Your task to perform on an android device: open app "Booking.com: Hotels and more" (install if not already installed), go to login, and select forgot password Image 0: 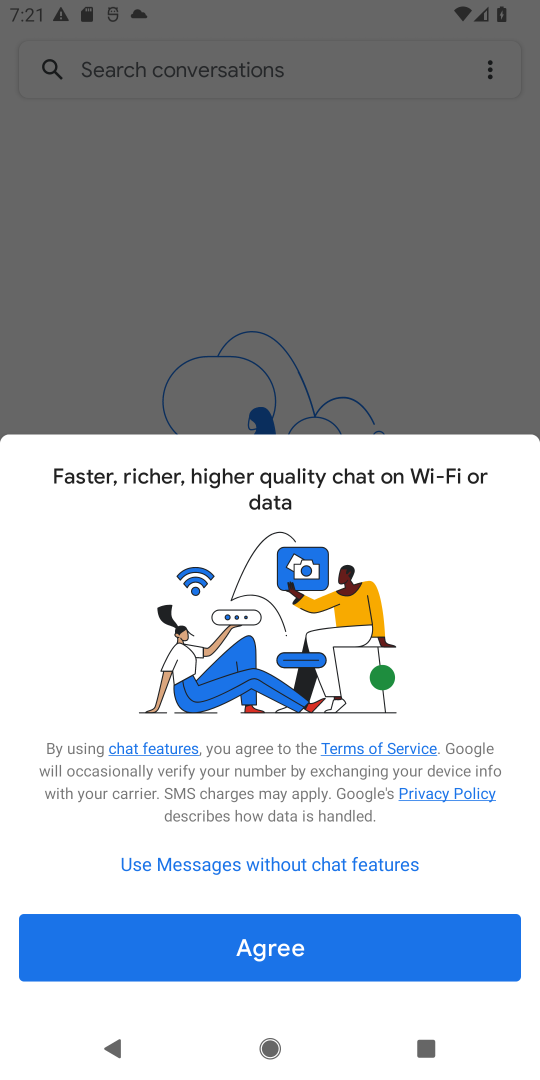
Step 0: press home button
Your task to perform on an android device: open app "Booking.com: Hotels and more" (install if not already installed), go to login, and select forgot password Image 1: 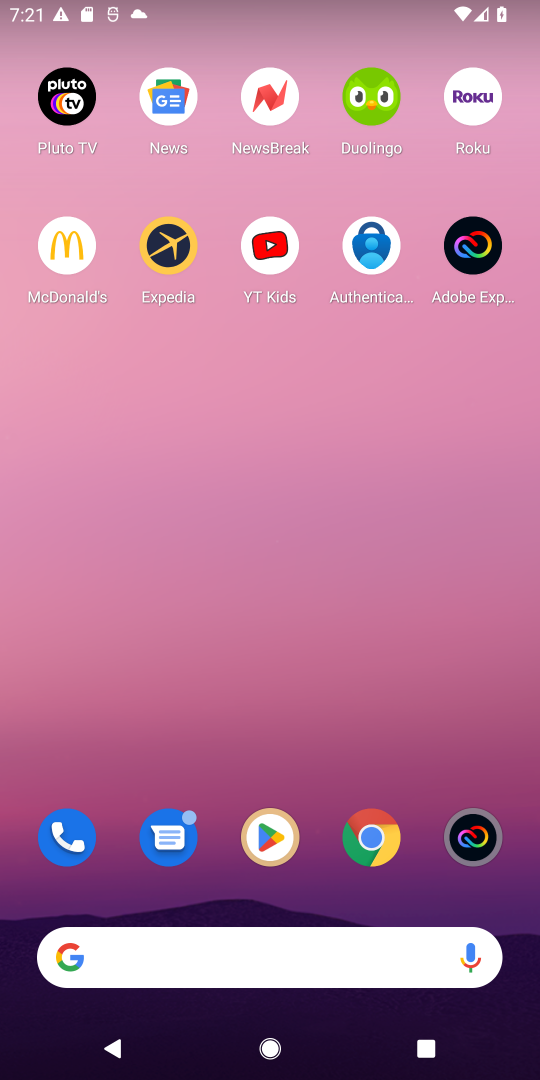
Step 1: drag from (222, 875) to (297, 59)
Your task to perform on an android device: open app "Booking.com: Hotels and more" (install if not already installed), go to login, and select forgot password Image 2: 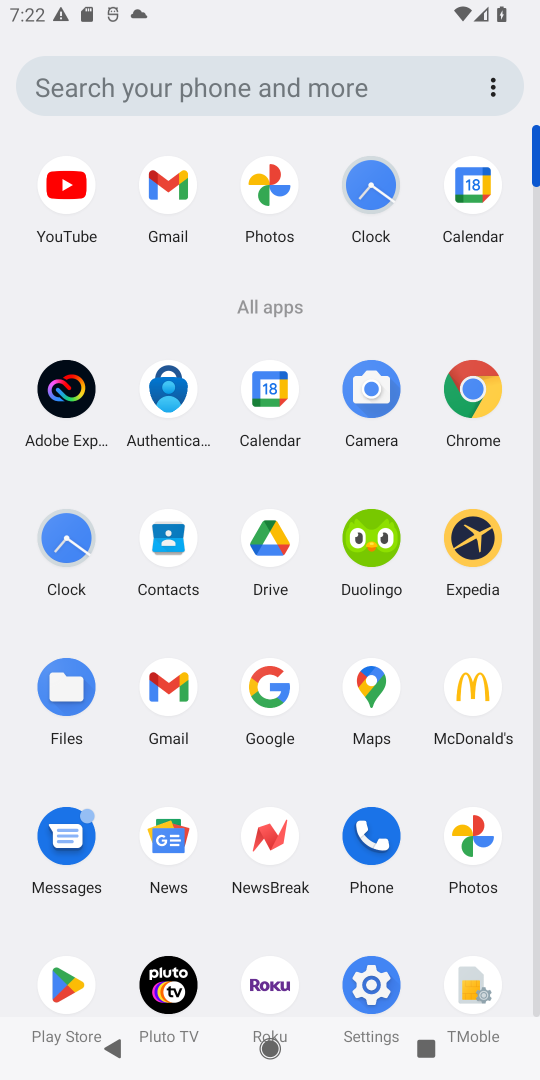
Step 2: click (73, 984)
Your task to perform on an android device: open app "Booking.com: Hotels and more" (install if not already installed), go to login, and select forgot password Image 3: 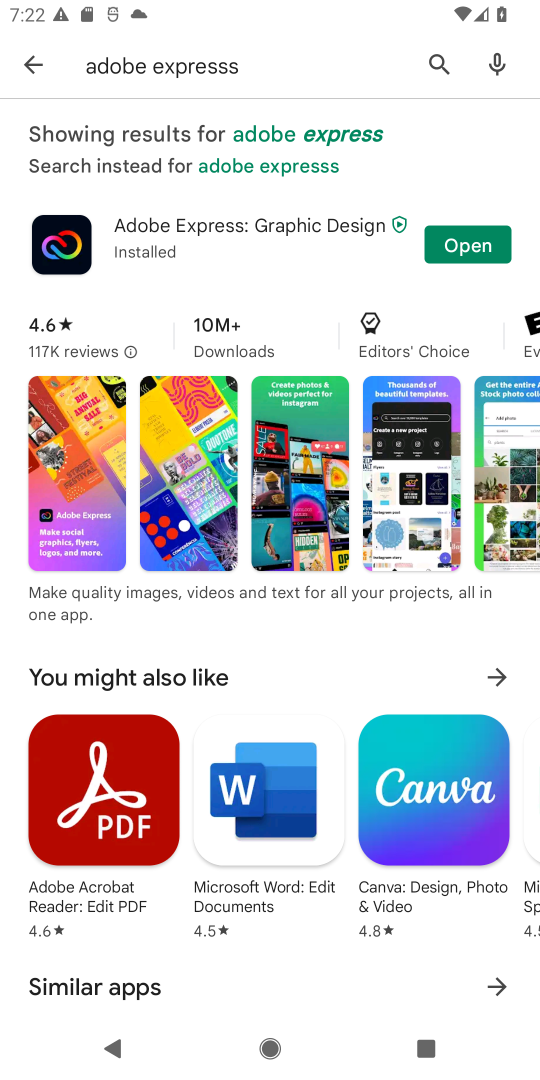
Step 3: click (195, 66)
Your task to perform on an android device: open app "Booking.com: Hotels and more" (install if not already installed), go to login, and select forgot password Image 4: 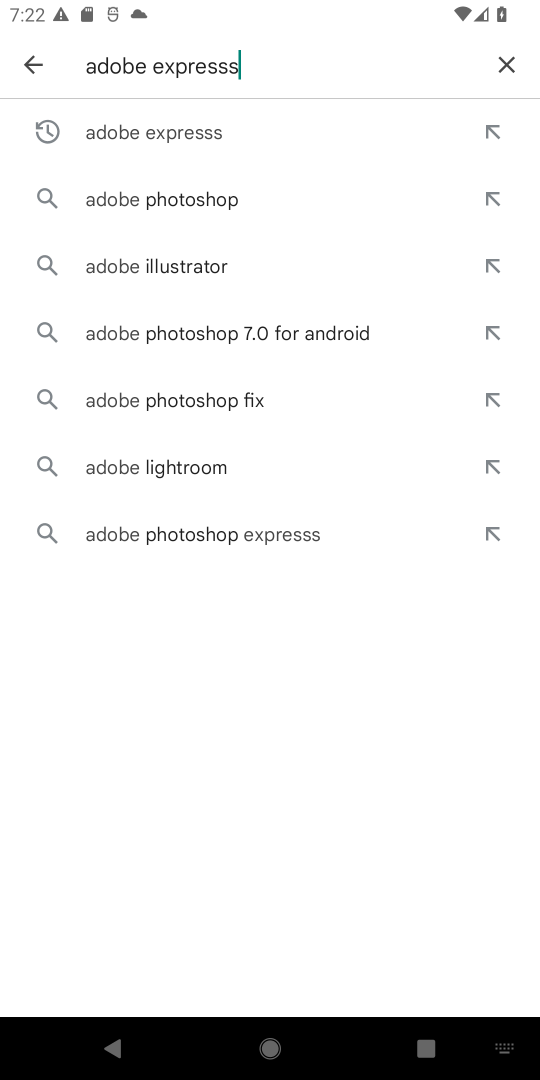
Step 4: click (183, 63)
Your task to perform on an android device: open app "Booking.com: Hotels and more" (install if not already installed), go to login, and select forgot password Image 5: 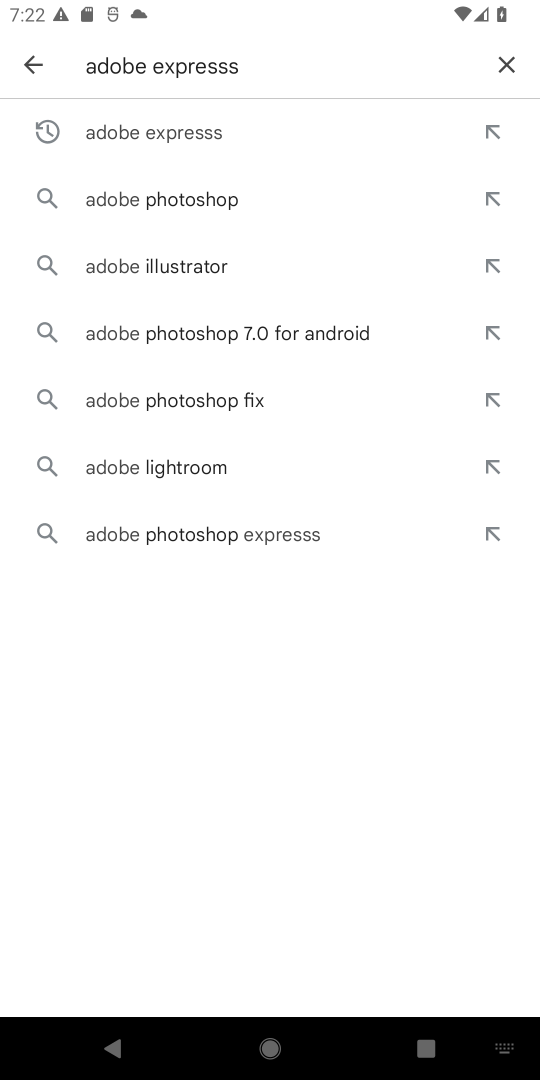
Step 5: click (496, 53)
Your task to perform on an android device: open app "Booking.com: Hotels and more" (install if not already installed), go to login, and select forgot password Image 6: 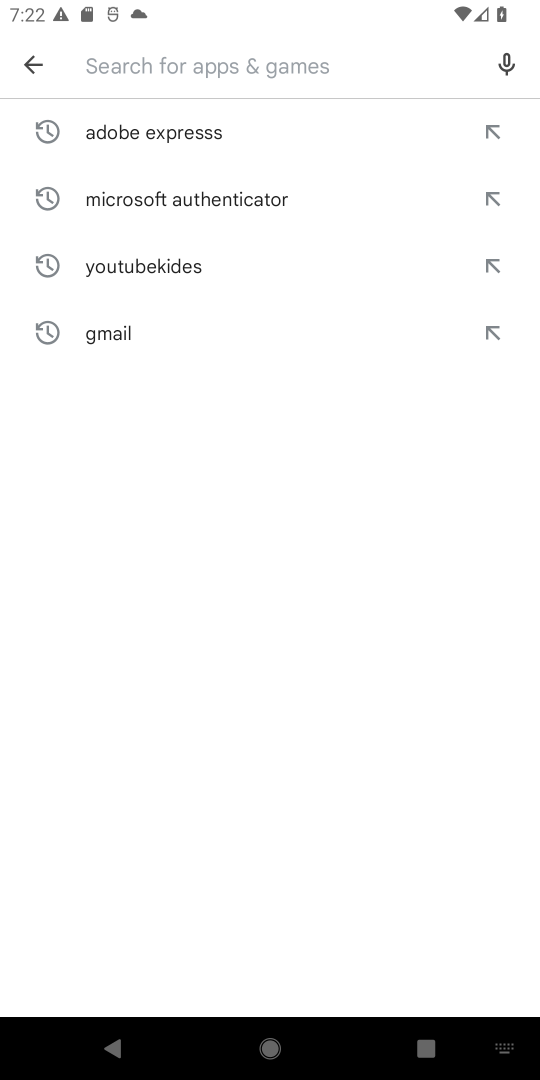
Step 6: type "booking.com"
Your task to perform on an android device: open app "Booking.com: Hotels and more" (install if not already installed), go to login, and select forgot password Image 7: 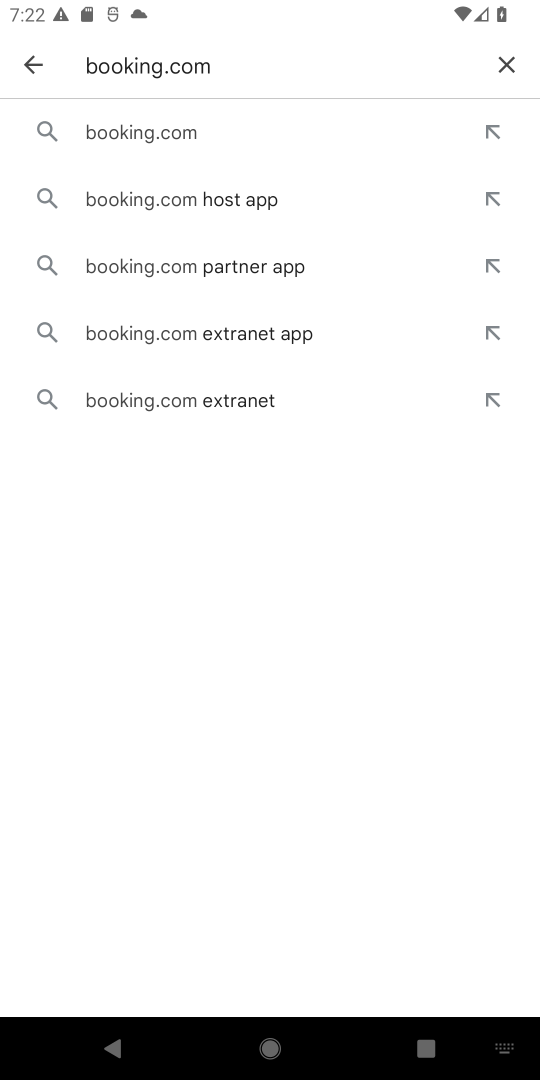
Step 7: click (120, 147)
Your task to perform on an android device: open app "Booking.com: Hotels and more" (install if not already installed), go to login, and select forgot password Image 8: 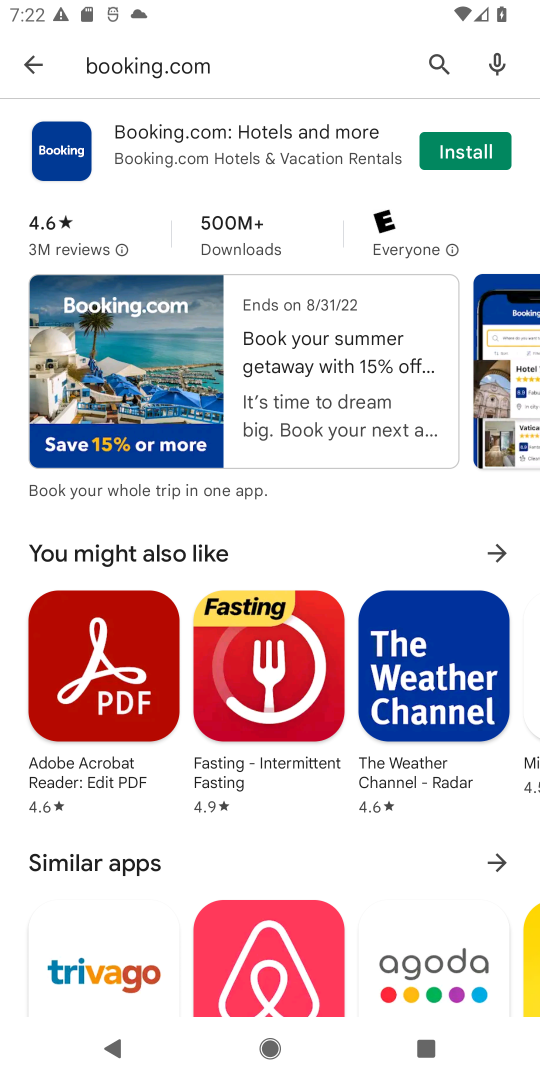
Step 8: click (474, 161)
Your task to perform on an android device: open app "Booking.com: Hotels and more" (install if not already installed), go to login, and select forgot password Image 9: 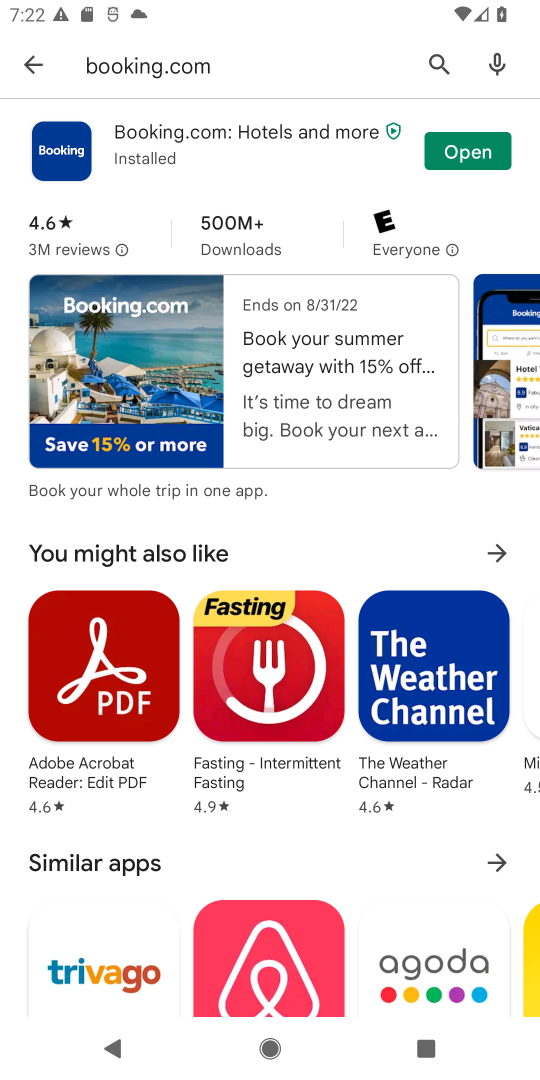
Step 9: click (501, 149)
Your task to perform on an android device: open app "Booking.com: Hotels and more" (install if not already installed), go to login, and select forgot password Image 10: 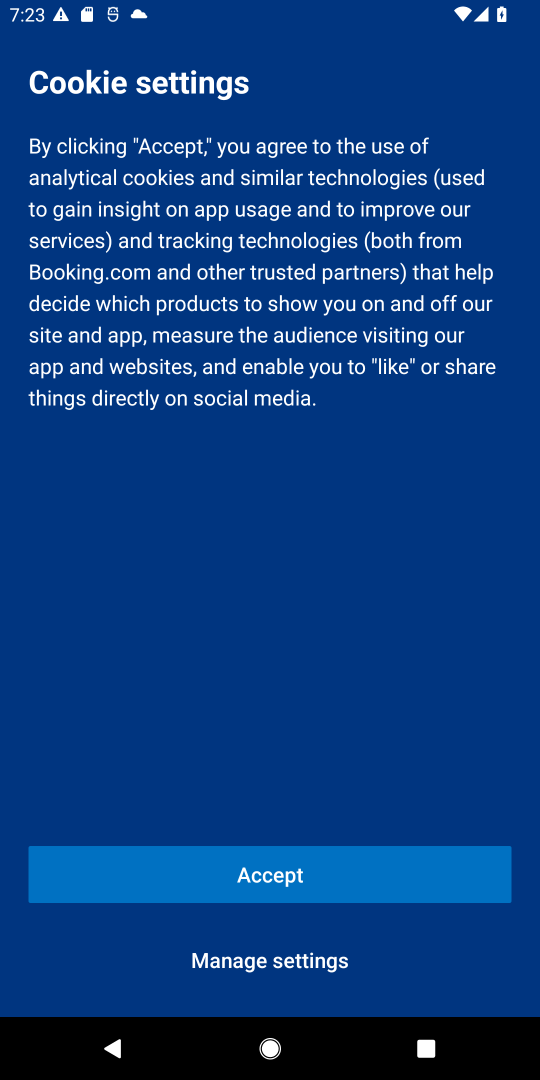
Step 10: click (320, 873)
Your task to perform on an android device: open app "Booking.com: Hotels and more" (install if not already installed), go to login, and select forgot password Image 11: 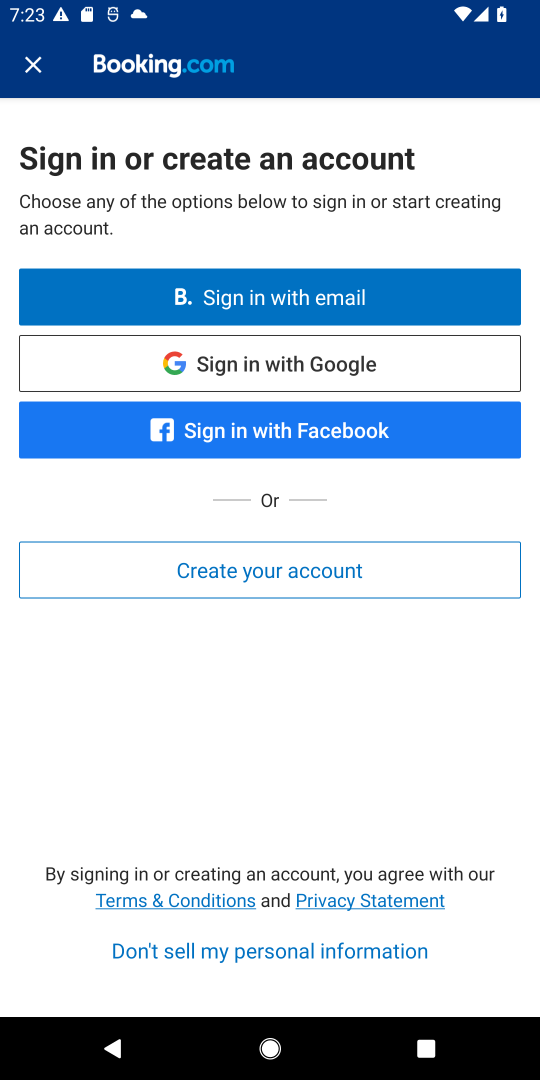
Step 11: click (335, 295)
Your task to perform on an android device: open app "Booking.com: Hotels and more" (install if not already installed), go to login, and select forgot password Image 12: 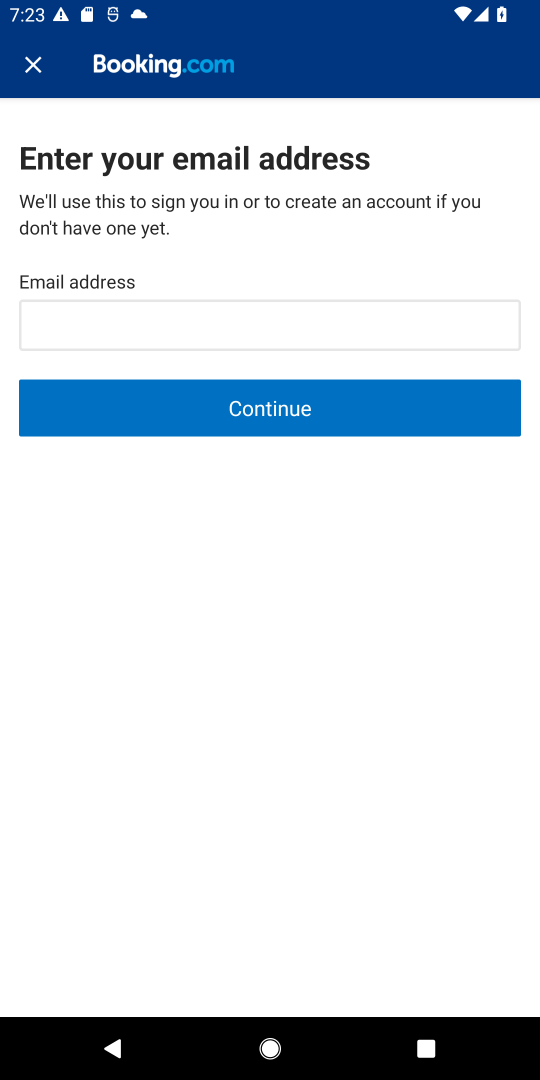
Step 12: task complete